Your task to perform on an android device: Show me popular videos on Youtube Image 0: 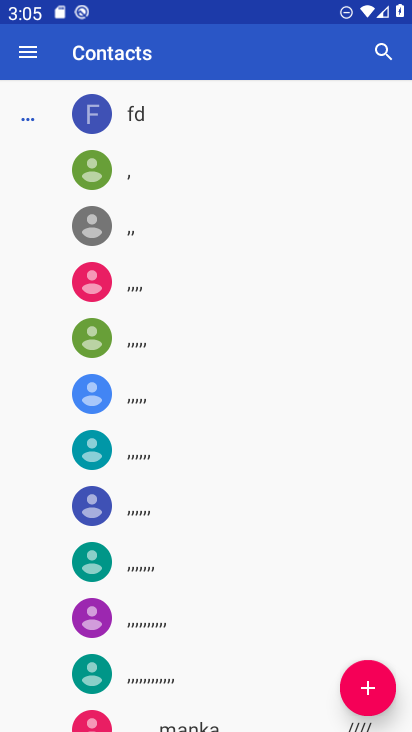
Step 0: press home button
Your task to perform on an android device: Show me popular videos on Youtube Image 1: 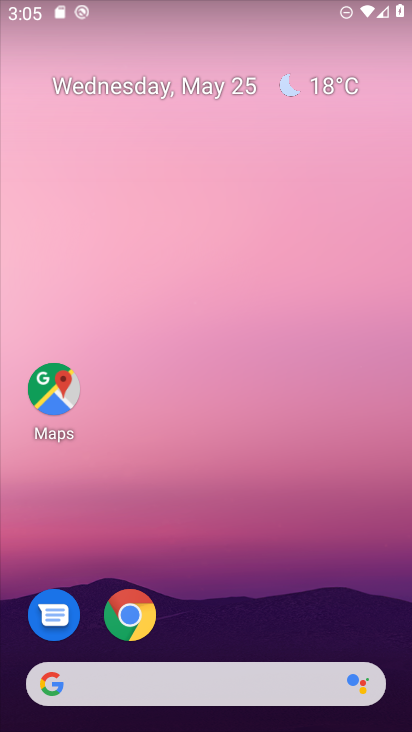
Step 1: drag from (201, 567) to (279, 4)
Your task to perform on an android device: Show me popular videos on Youtube Image 2: 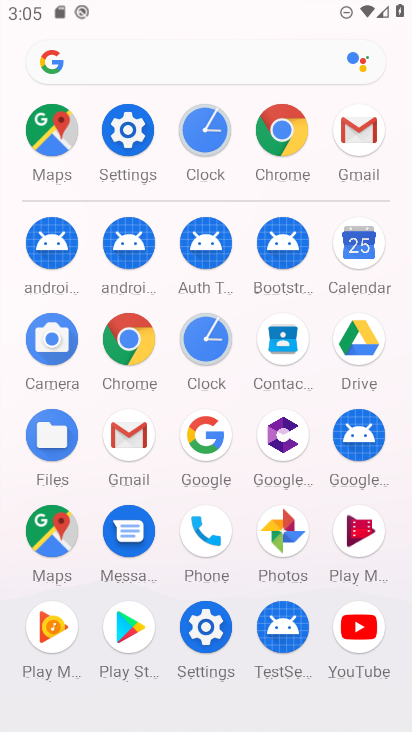
Step 2: click (354, 618)
Your task to perform on an android device: Show me popular videos on Youtube Image 3: 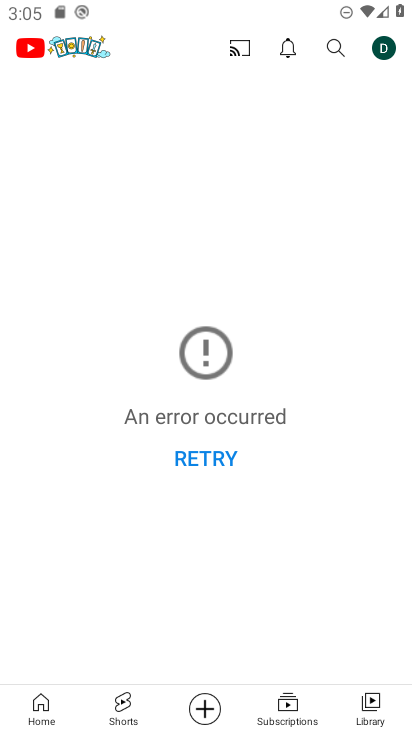
Step 3: click (208, 453)
Your task to perform on an android device: Show me popular videos on Youtube Image 4: 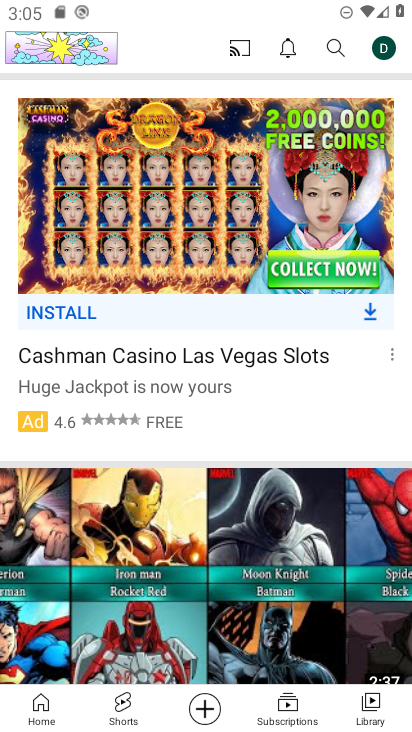
Step 4: click (329, 43)
Your task to perform on an android device: Show me popular videos on Youtube Image 5: 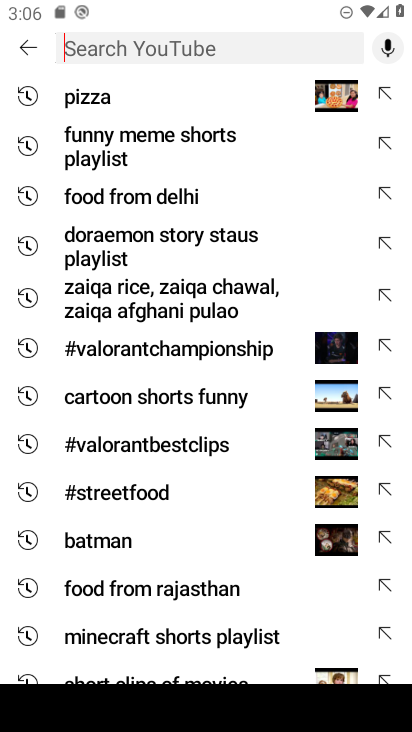
Step 5: type "popular videos"
Your task to perform on an android device: Show me popular videos on Youtube Image 6: 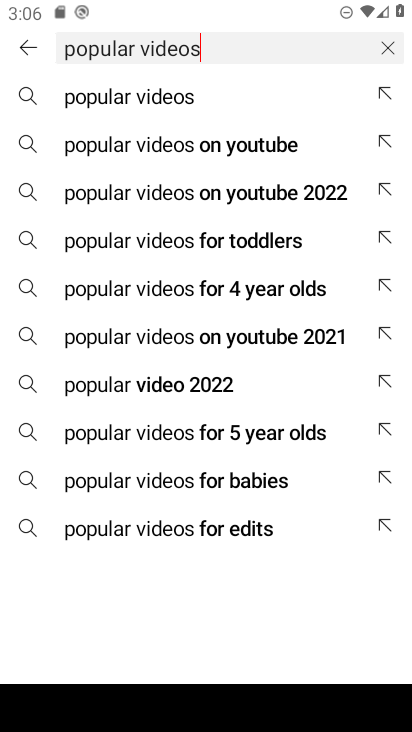
Step 6: click (256, 143)
Your task to perform on an android device: Show me popular videos on Youtube Image 7: 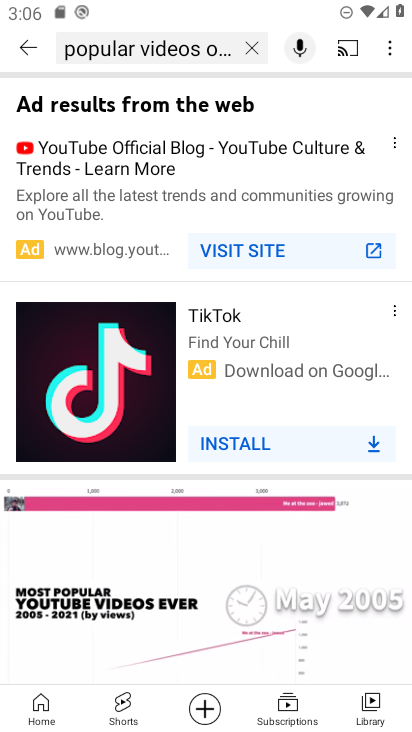
Step 7: task complete